Your task to perform on an android device: Empty the shopping cart on newegg.com. Search for "asus rog" on newegg.com, select the first entry, add it to the cart, then select checkout. Image 0: 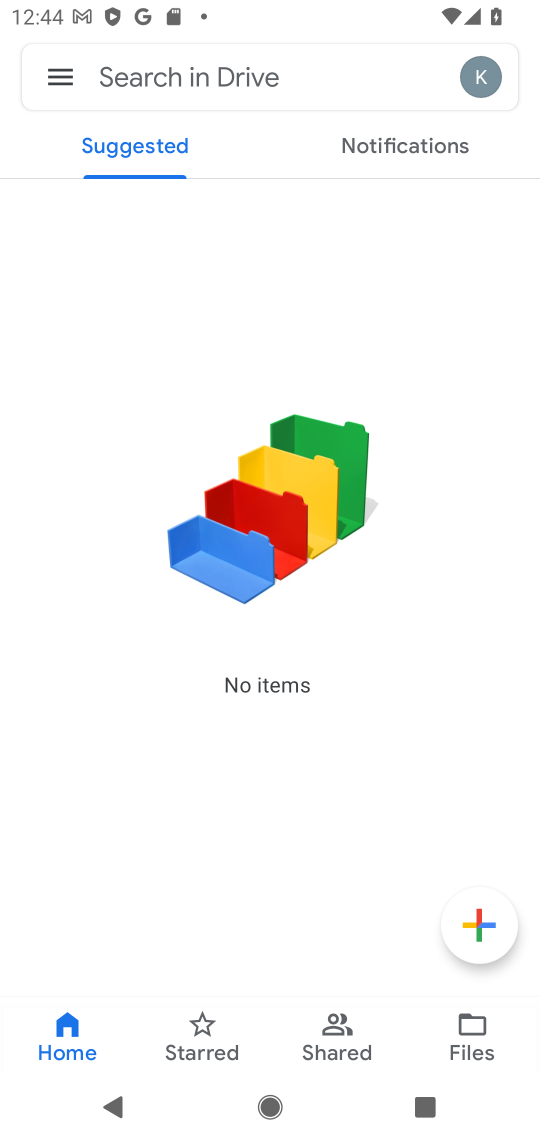
Step 0: press home button
Your task to perform on an android device: Empty the shopping cart on newegg.com. Search for "asus rog" on newegg.com, select the first entry, add it to the cart, then select checkout. Image 1: 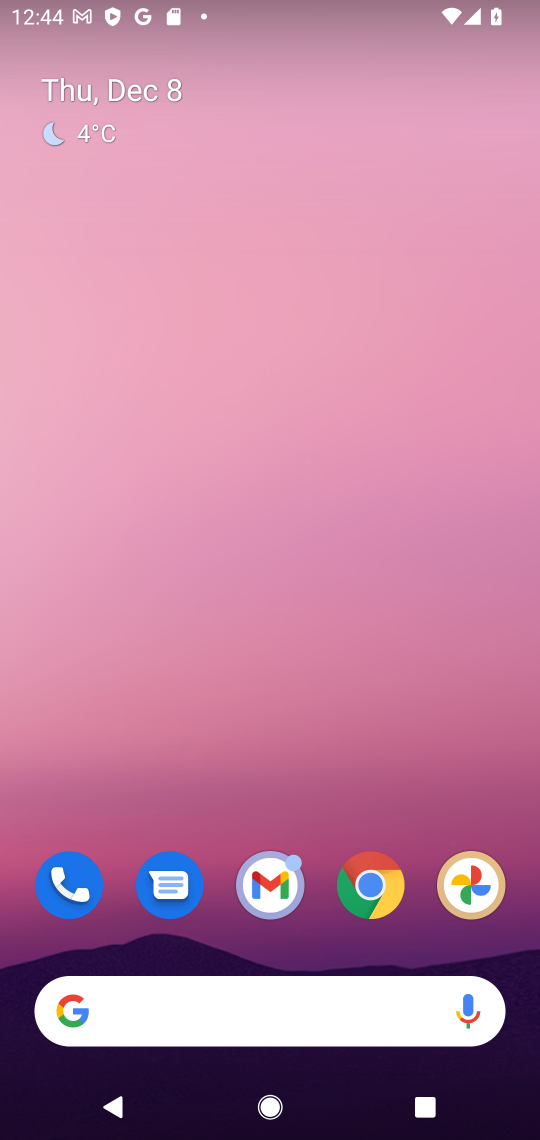
Step 1: click (368, 885)
Your task to perform on an android device: Empty the shopping cart on newegg.com. Search for "asus rog" on newegg.com, select the first entry, add it to the cart, then select checkout. Image 2: 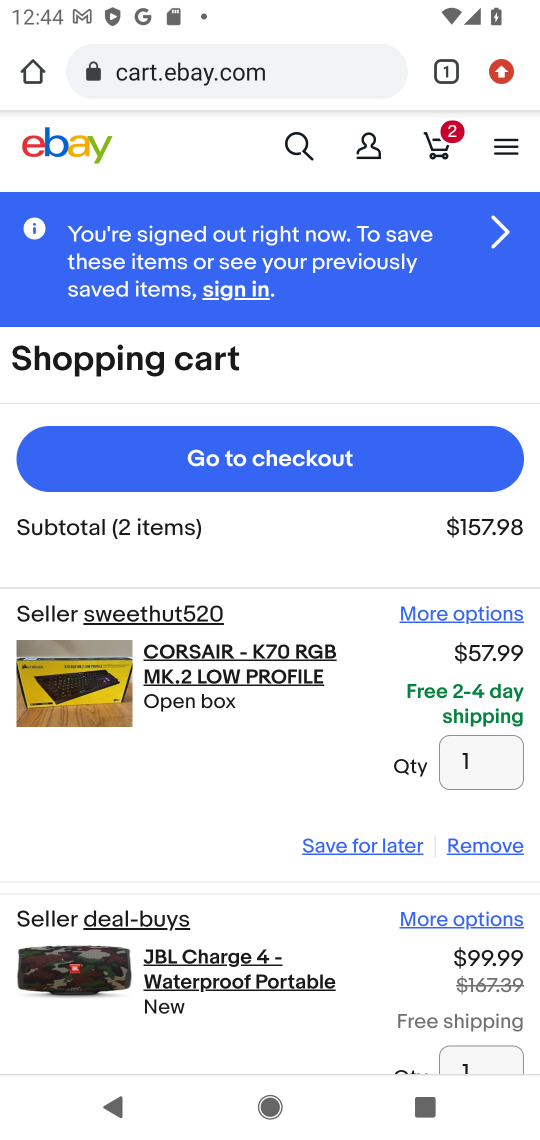
Step 2: click (324, 78)
Your task to perform on an android device: Empty the shopping cart on newegg.com. Search for "asus rog" on newegg.com, select the first entry, add it to the cart, then select checkout. Image 3: 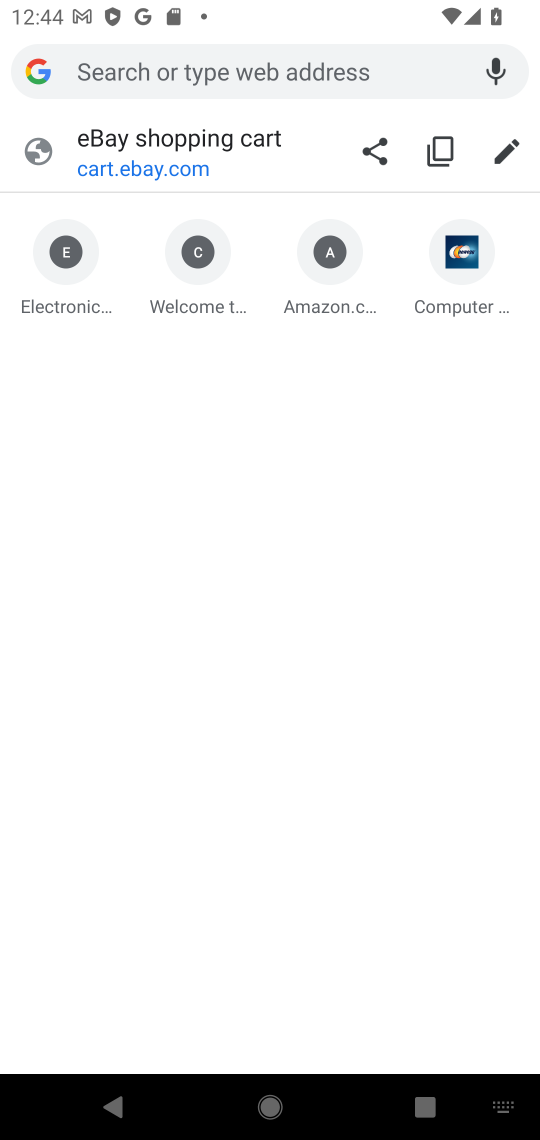
Step 3: type "NEWEGG"
Your task to perform on an android device: Empty the shopping cart on newegg.com. Search for "asus rog" on newegg.com, select the first entry, add it to the cart, then select checkout. Image 4: 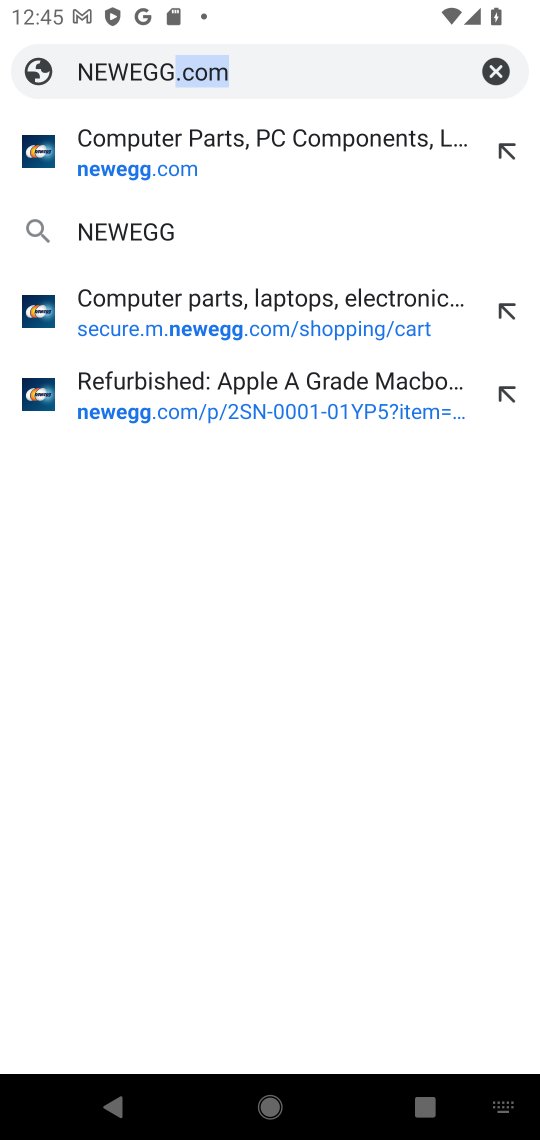
Step 4: click (204, 158)
Your task to perform on an android device: Empty the shopping cart on newegg.com. Search for "asus rog" on newegg.com, select the first entry, add it to the cart, then select checkout. Image 5: 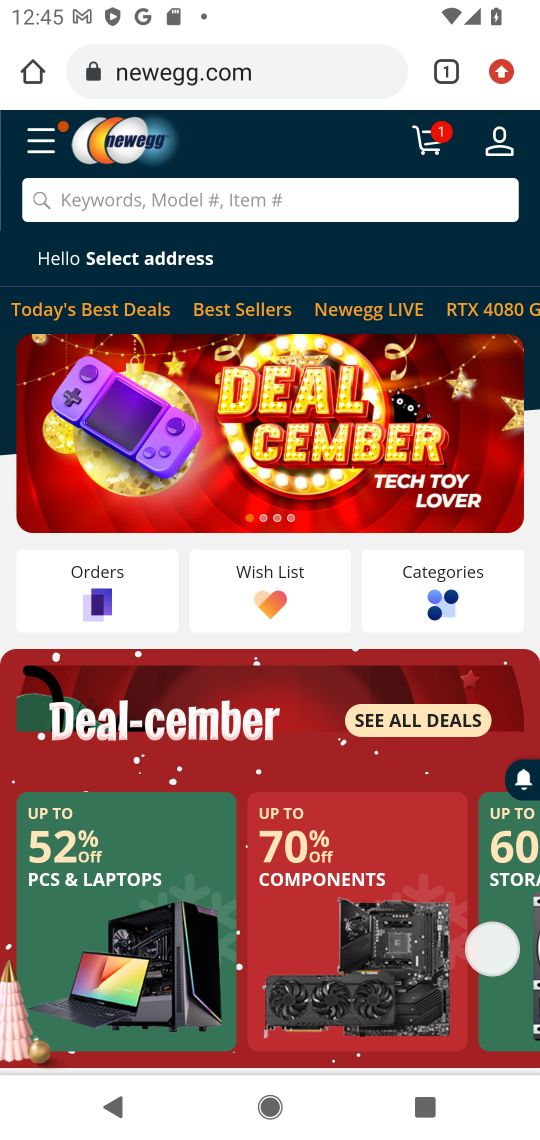
Step 5: click (231, 204)
Your task to perform on an android device: Empty the shopping cart on newegg.com. Search for "asus rog" on newegg.com, select the first entry, add it to the cart, then select checkout. Image 6: 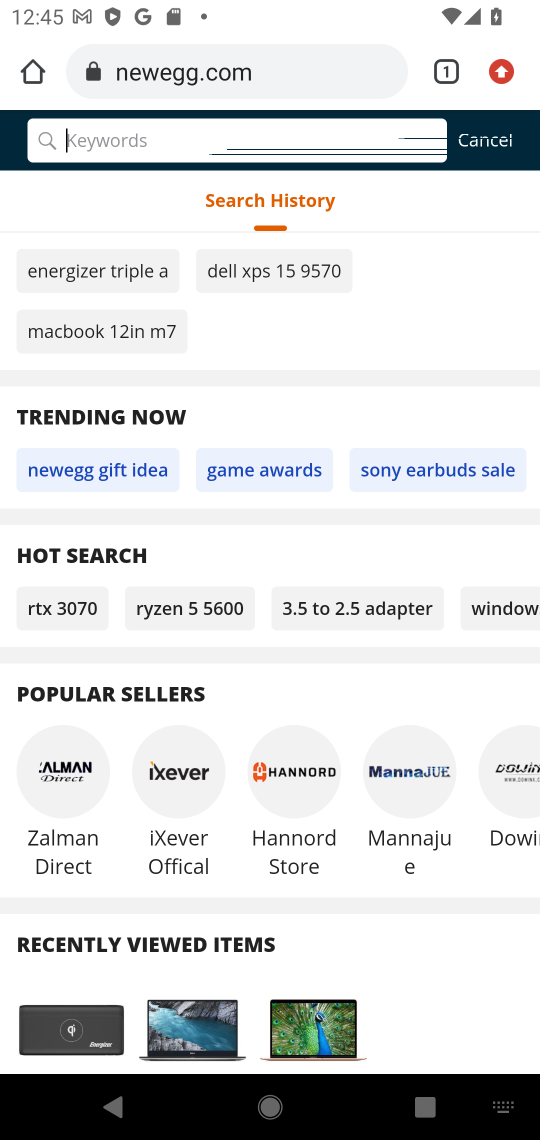
Step 6: type "ASUS ROG"
Your task to perform on an android device: Empty the shopping cart on newegg.com. Search for "asus rog" on newegg.com, select the first entry, add it to the cart, then select checkout. Image 7: 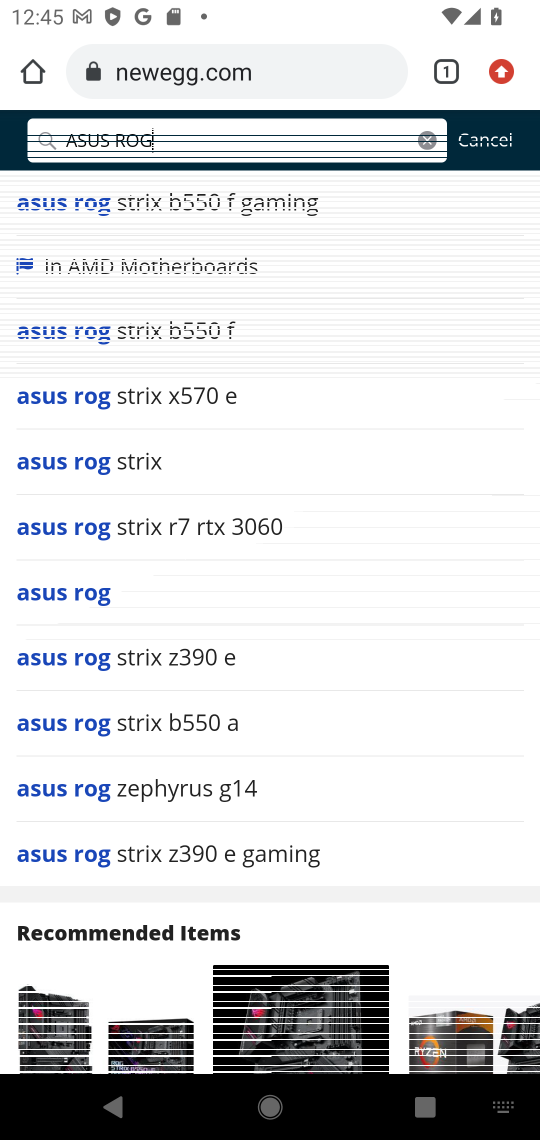
Step 7: click (87, 213)
Your task to perform on an android device: Empty the shopping cart on newegg.com. Search for "asus rog" on newegg.com, select the first entry, add it to the cart, then select checkout. Image 8: 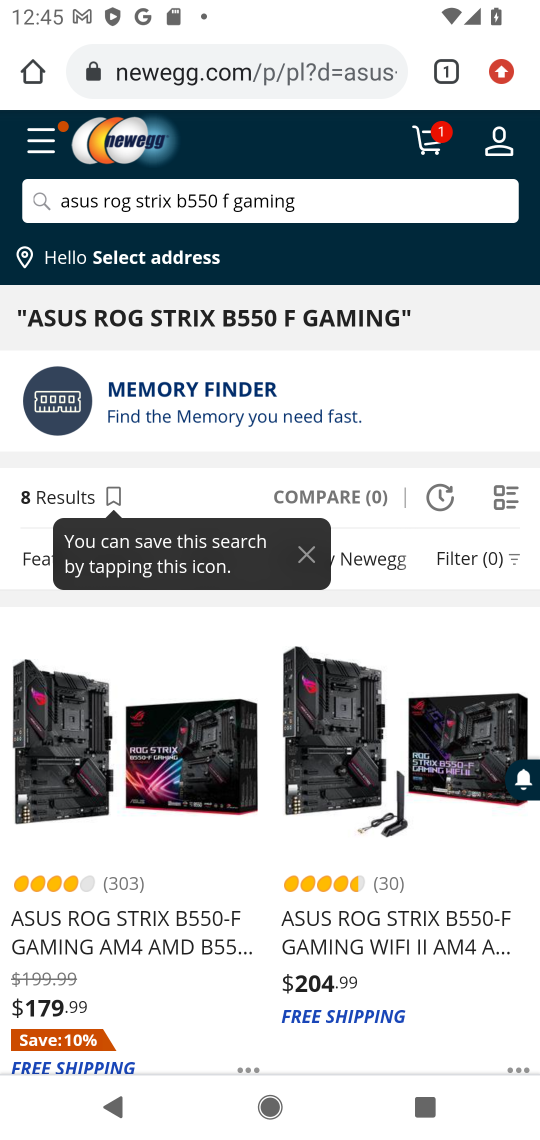
Step 8: click (131, 767)
Your task to perform on an android device: Empty the shopping cart on newegg.com. Search for "asus rog" on newegg.com, select the first entry, add it to the cart, then select checkout. Image 9: 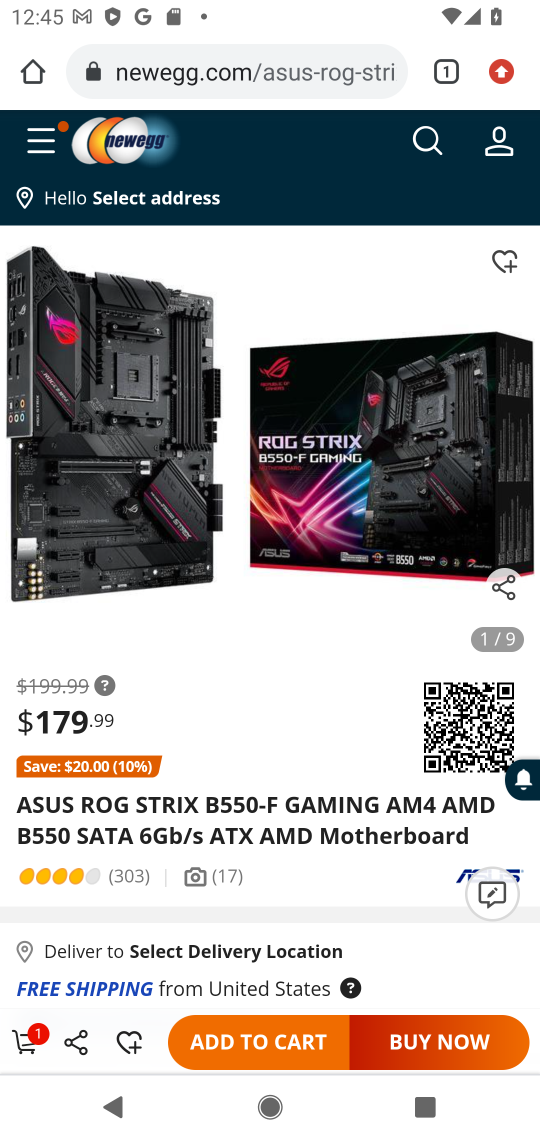
Step 9: click (271, 1047)
Your task to perform on an android device: Empty the shopping cart on newegg.com. Search for "asus rog" on newegg.com, select the first entry, add it to the cart, then select checkout. Image 10: 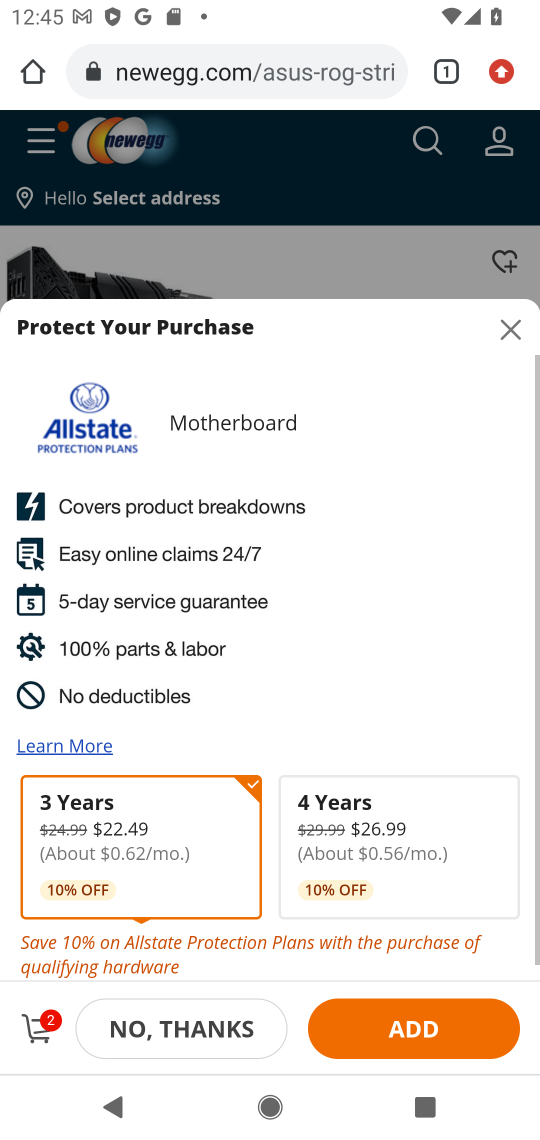
Step 10: click (156, 1025)
Your task to perform on an android device: Empty the shopping cart on newegg.com. Search for "asus rog" on newegg.com, select the first entry, add it to the cart, then select checkout. Image 11: 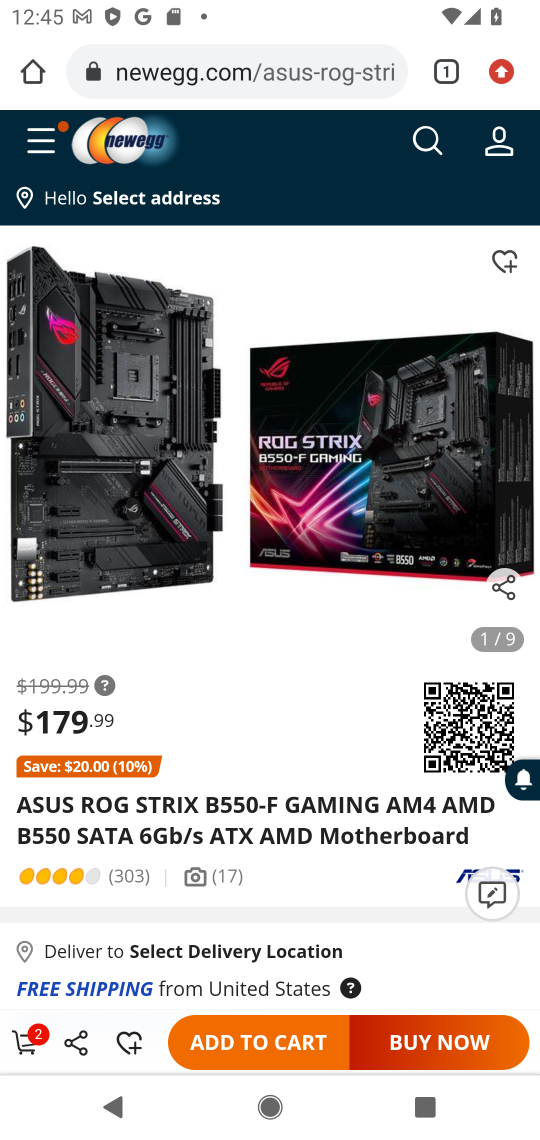
Step 11: click (35, 1032)
Your task to perform on an android device: Empty the shopping cart on newegg.com. Search for "asus rog" on newegg.com, select the first entry, add it to the cart, then select checkout. Image 12: 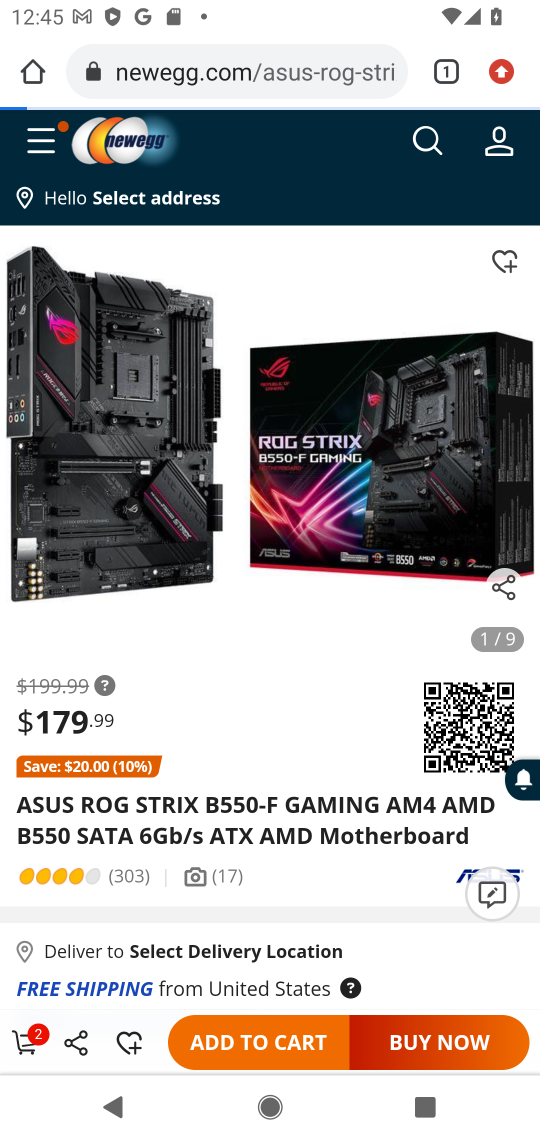
Step 12: click (35, 1032)
Your task to perform on an android device: Empty the shopping cart on newegg.com. Search for "asus rog" on newegg.com, select the first entry, add it to the cart, then select checkout. Image 13: 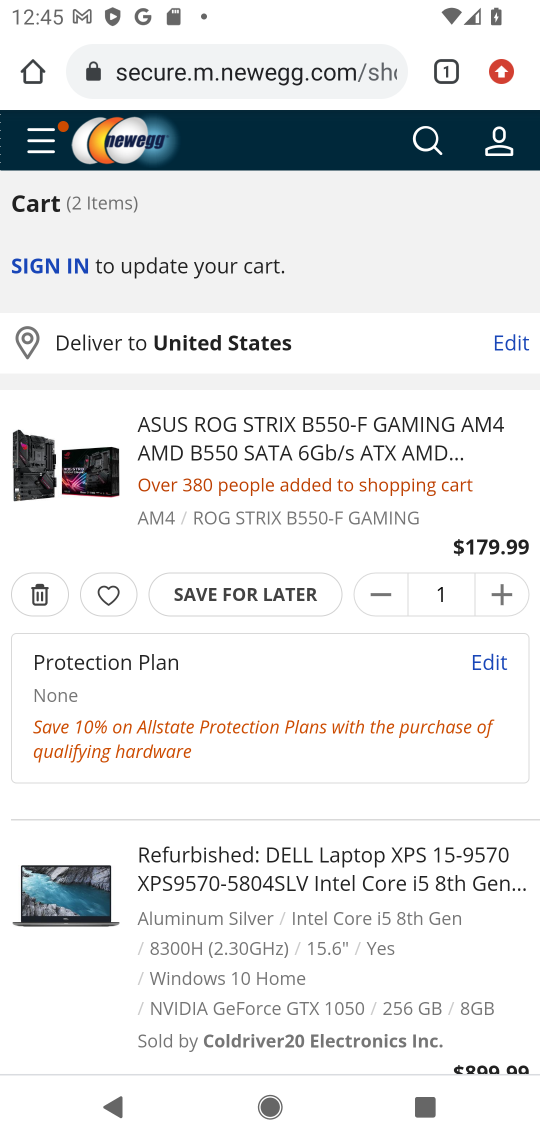
Step 13: click (235, 1026)
Your task to perform on an android device: Empty the shopping cart on newegg.com. Search for "asus rog" on newegg.com, select the first entry, add it to the cart, then select checkout. Image 14: 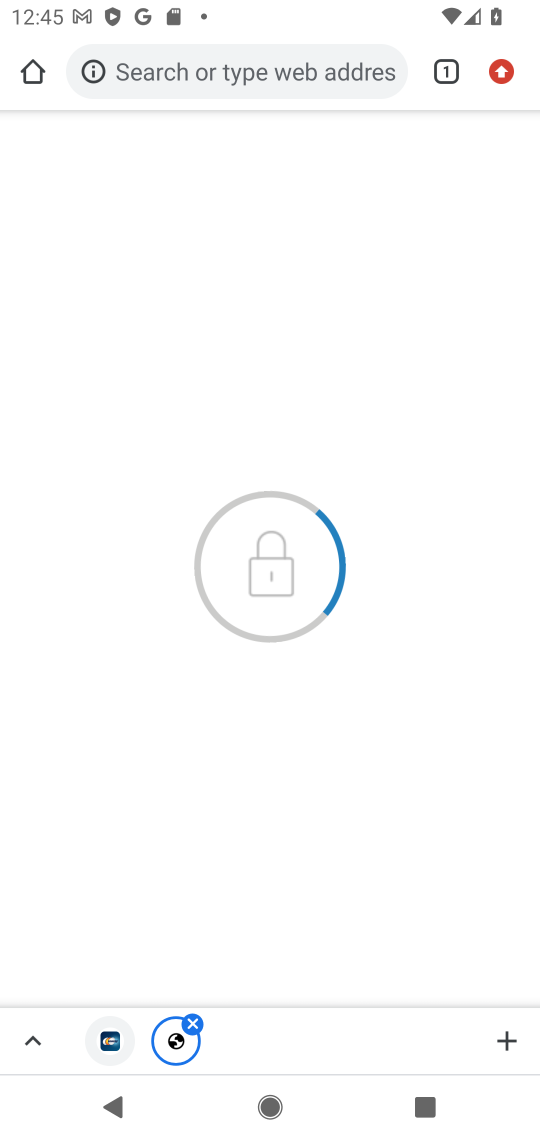
Step 14: task complete